Your task to perform on an android device: What's the weather going to be this weekend? Image 0: 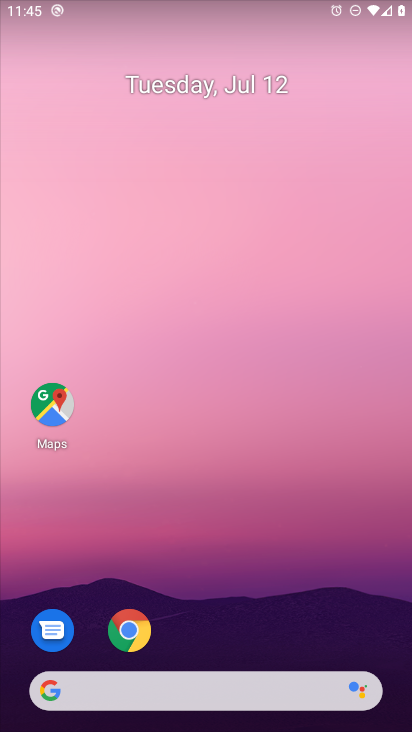
Step 0: press home button
Your task to perform on an android device: What's the weather going to be this weekend? Image 1: 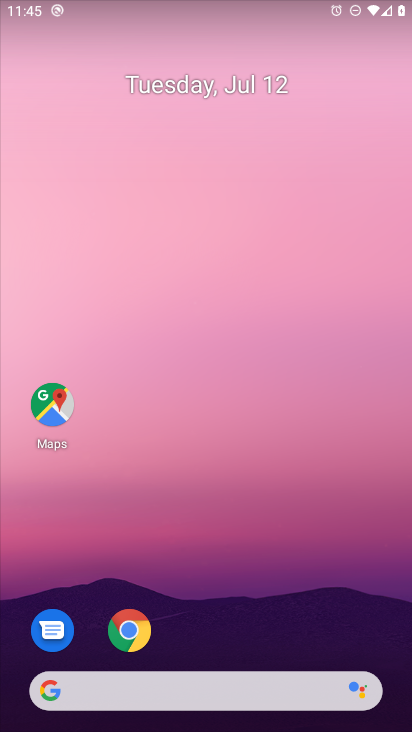
Step 1: press home button
Your task to perform on an android device: What's the weather going to be this weekend? Image 2: 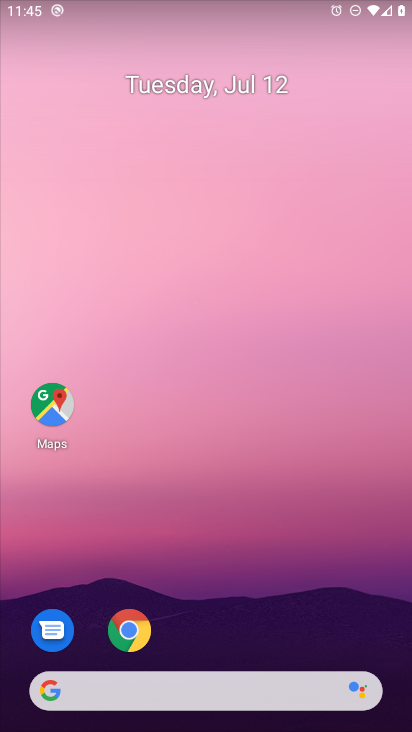
Step 2: click (192, 692)
Your task to perform on an android device: What's the weather going to be this weekend? Image 3: 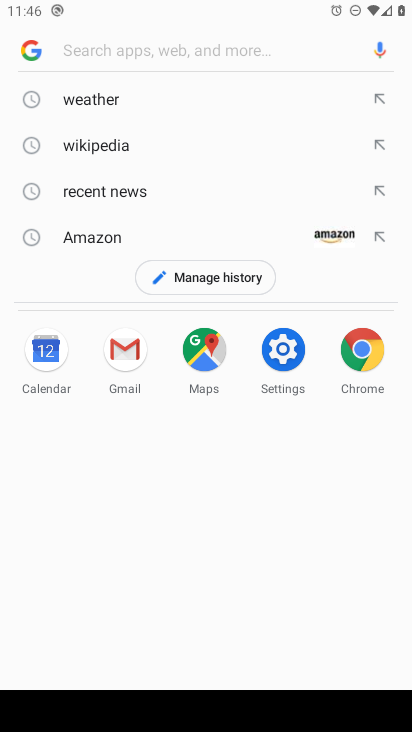
Step 3: type "weather going to be this weekend"
Your task to perform on an android device: What's the weather going to be this weekend? Image 4: 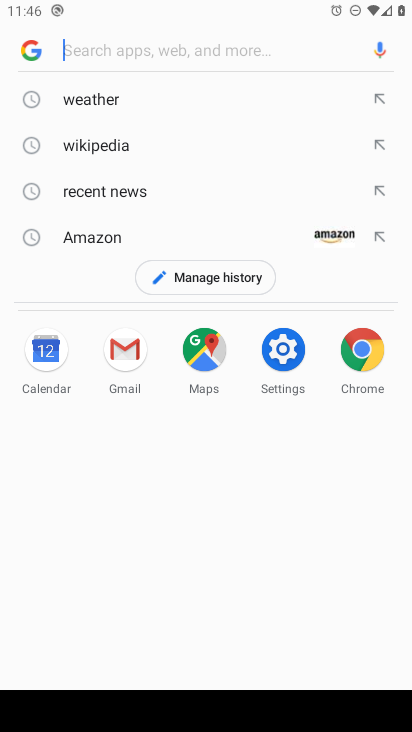
Step 4: click (121, 54)
Your task to perform on an android device: What's the weather going to be this weekend? Image 5: 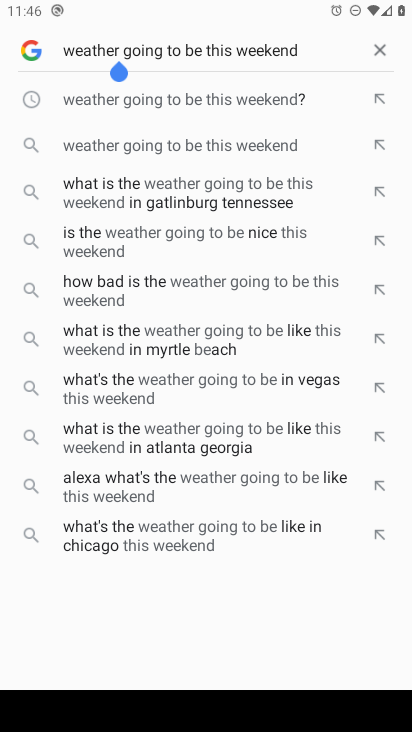
Step 5: click (263, 91)
Your task to perform on an android device: What's the weather going to be this weekend? Image 6: 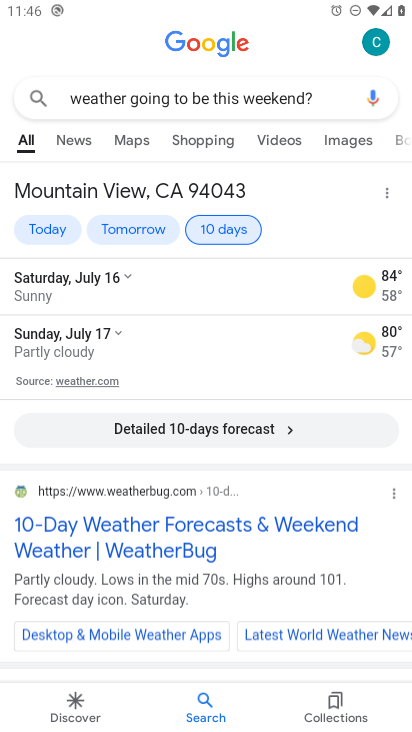
Step 6: task complete